Your task to perform on an android device: What's the weather going to be this weekend? Image 0: 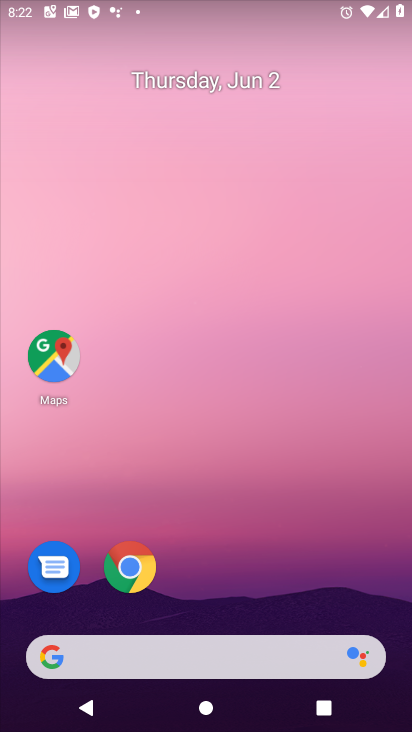
Step 0: drag from (244, 597) to (173, 175)
Your task to perform on an android device: What's the weather going to be this weekend? Image 1: 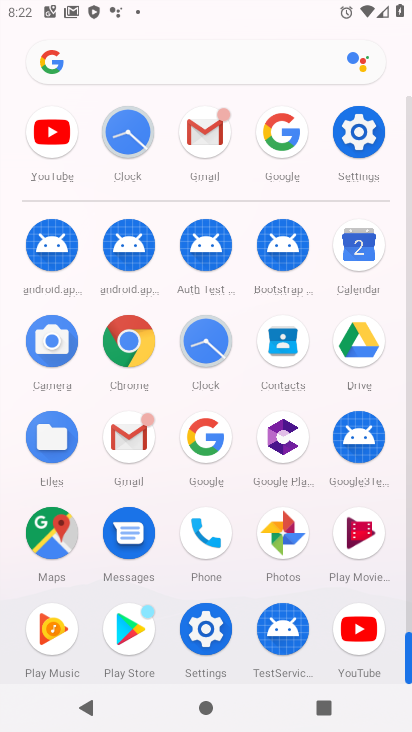
Step 1: click (278, 128)
Your task to perform on an android device: What's the weather going to be this weekend? Image 2: 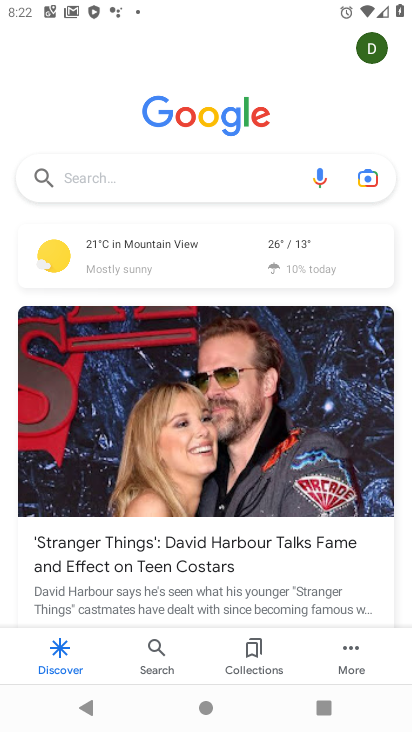
Step 2: click (180, 186)
Your task to perform on an android device: What's the weather going to be this weekend? Image 3: 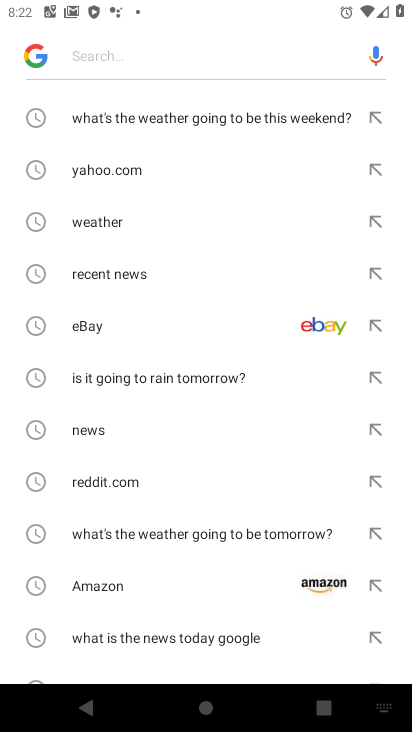
Step 3: click (264, 115)
Your task to perform on an android device: What's the weather going to be this weekend? Image 4: 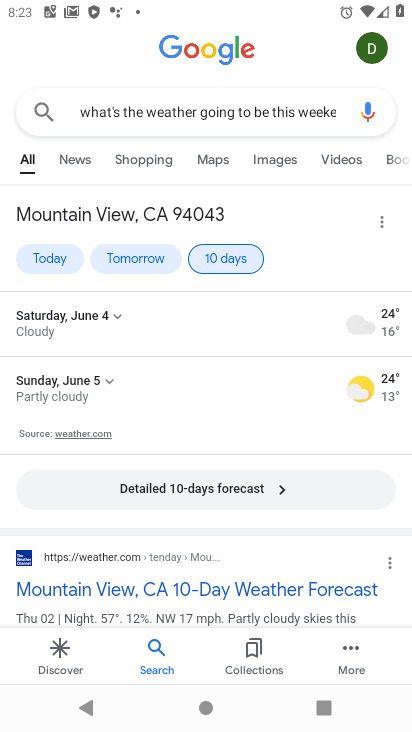
Step 4: task complete